Your task to perform on an android device: Do I have any events tomorrow? Image 0: 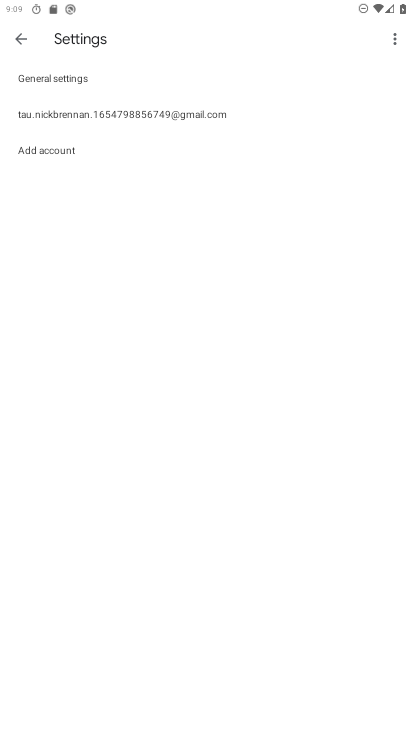
Step 0: press home button
Your task to perform on an android device: Do I have any events tomorrow? Image 1: 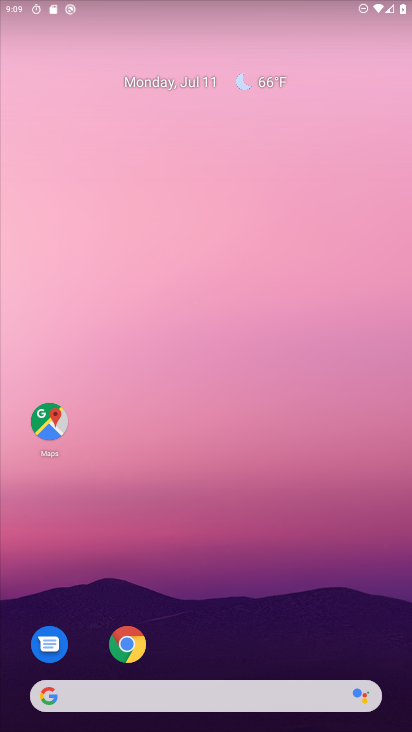
Step 1: drag from (326, 624) to (294, 139)
Your task to perform on an android device: Do I have any events tomorrow? Image 2: 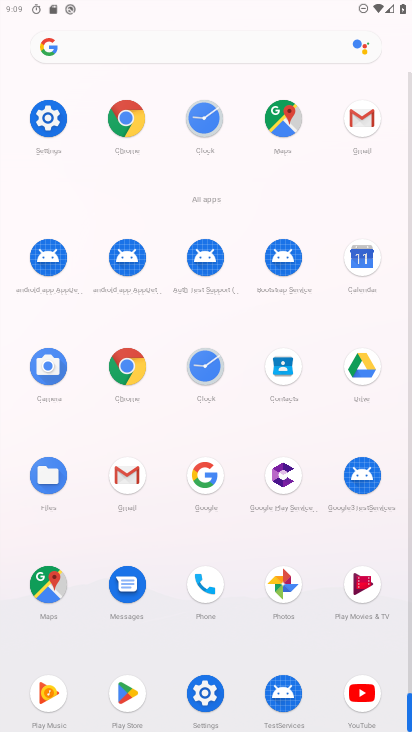
Step 2: click (371, 245)
Your task to perform on an android device: Do I have any events tomorrow? Image 3: 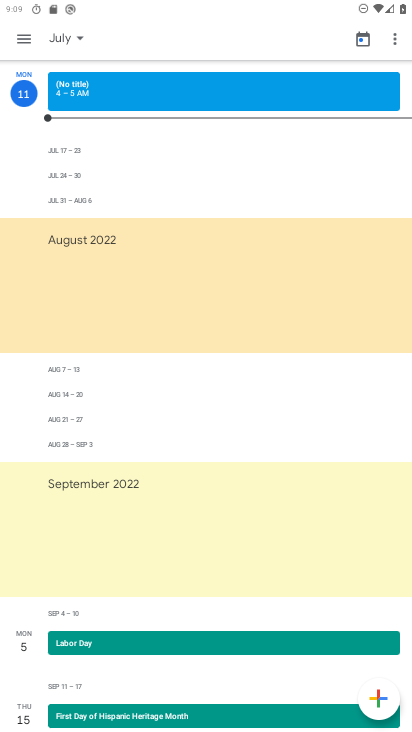
Step 3: click (67, 36)
Your task to perform on an android device: Do I have any events tomorrow? Image 4: 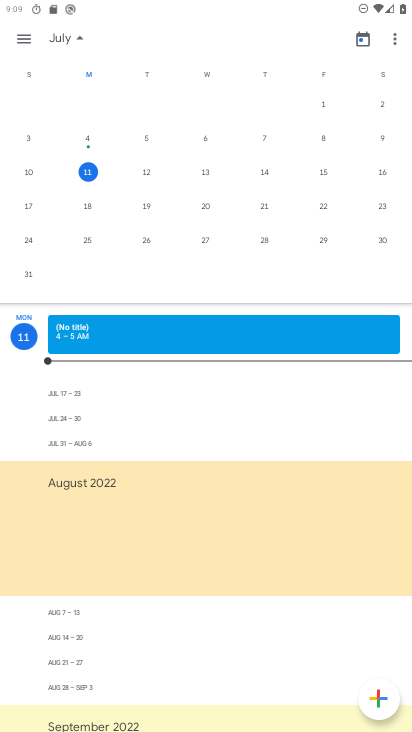
Step 4: click (156, 168)
Your task to perform on an android device: Do I have any events tomorrow? Image 5: 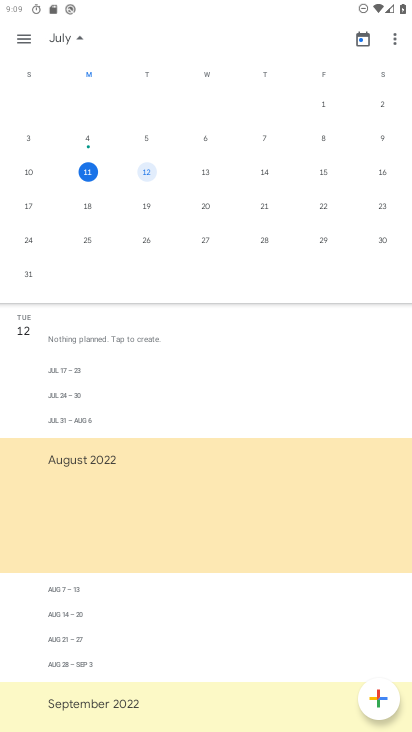
Step 5: task complete